Your task to perform on an android device: toggle priority inbox in the gmail app Image 0: 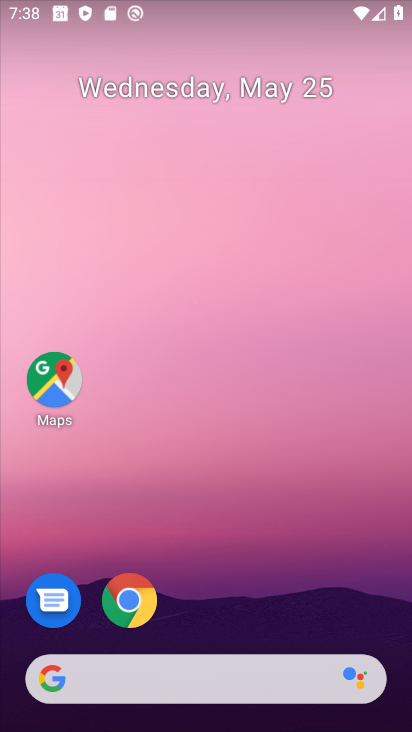
Step 0: drag from (226, 537) to (218, 44)
Your task to perform on an android device: toggle priority inbox in the gmail app Image 1: 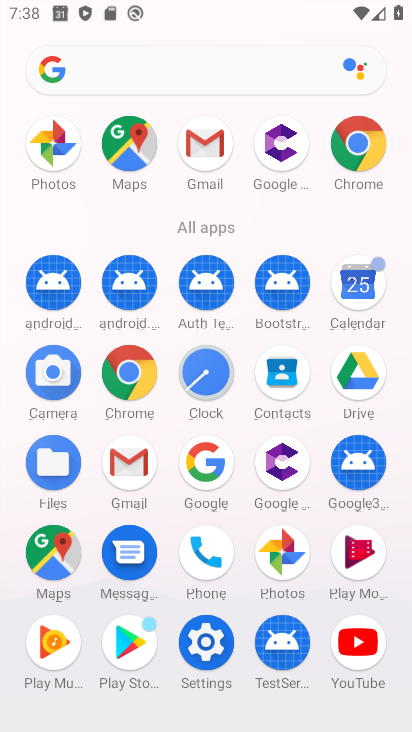
Step 1: click (201, 155)
Your task to perform on an android device: toggle priority inbox in the gmail app Image 2: 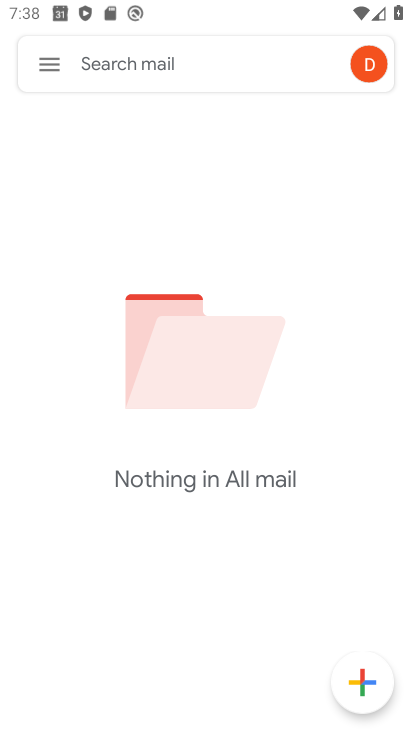
Step 2: click (58, 56)
Your task to perform on an android device: toggle priority inbox in the gmail app Image 3: 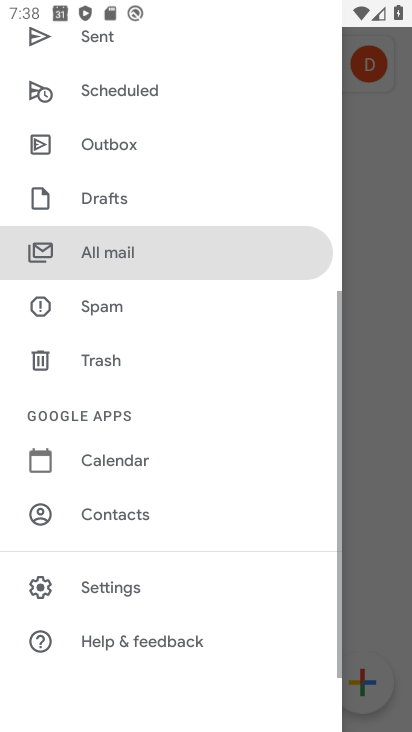
Step 3: drag from (209, 466) to (239, 157)
Your task to perform on an android device: toggle priority inbox in the gmail app Image 4: 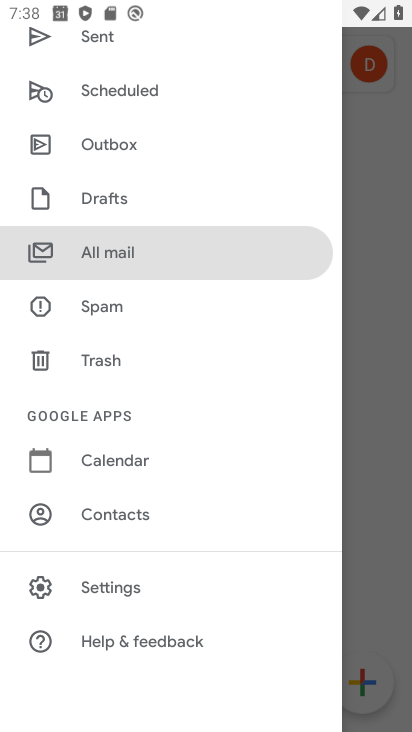
Step 4: click (106, 613)
Your task to perform on an android device: toggle priority inbox in the gmail app Image 5: 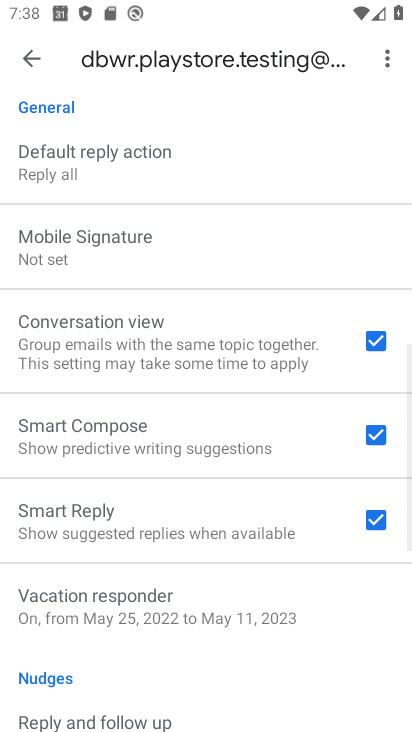
Step 5: drag from (111, 589) to (170, 167)
Your task to perform on an android device: toggle priority inbox in the gmail app Image 6: 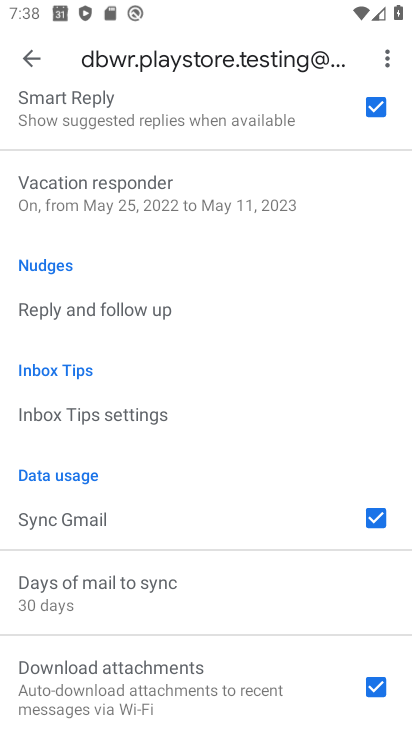
Step 6: drag from (201, 476) to (252, 109)
Your task to perform on an android device: toggle priority inbox in the gmail app Image 7: 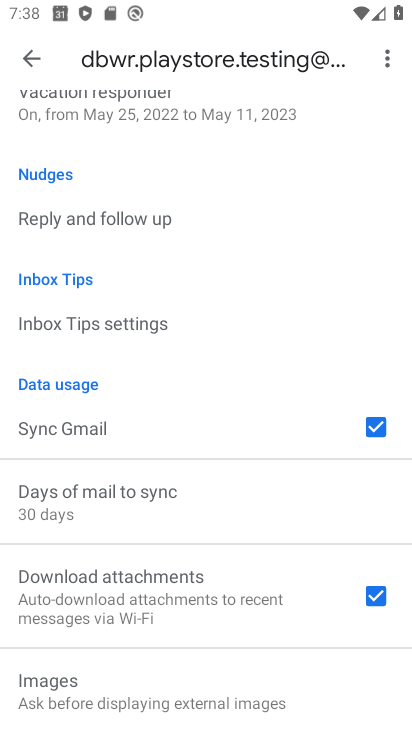
Step 7: drag from (166, 551) to (208, 143)
Your task to perform on an android device: toggle priority inbox in the gmail app Image 8: 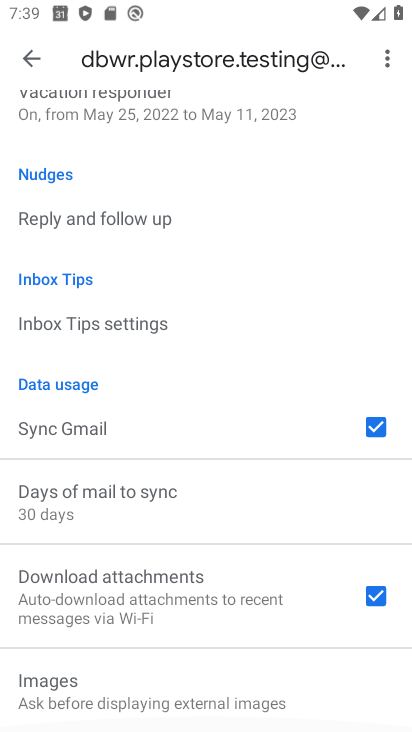
Step 8: drag from (179, 196) to (161, 582)
Your task to perform on an android device: toggle priority inbox in the gmail app Image 9: 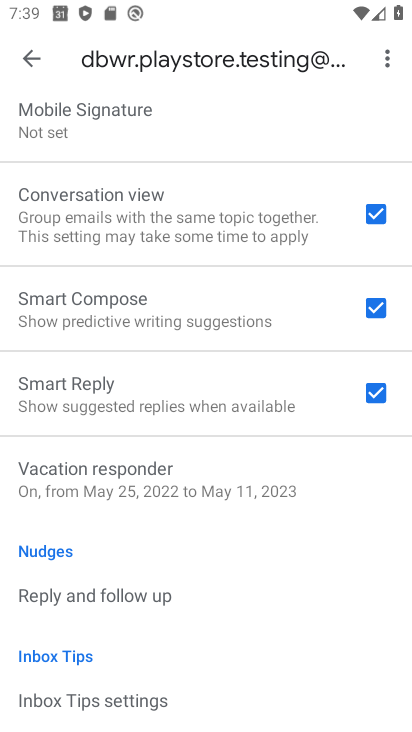
Step 9: drag from (206, 73) to (221, 718)
Your task to perform on an android device: toggle priority inbox in the gmail app Image 10: 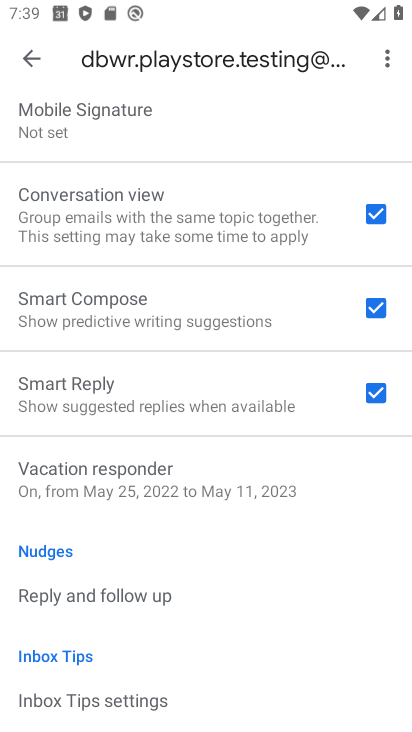
Step 10: drag from (200, 259) to (245, 697)
Your task to perform on an android device: toggle priority inbox in the gmail app Image 11: 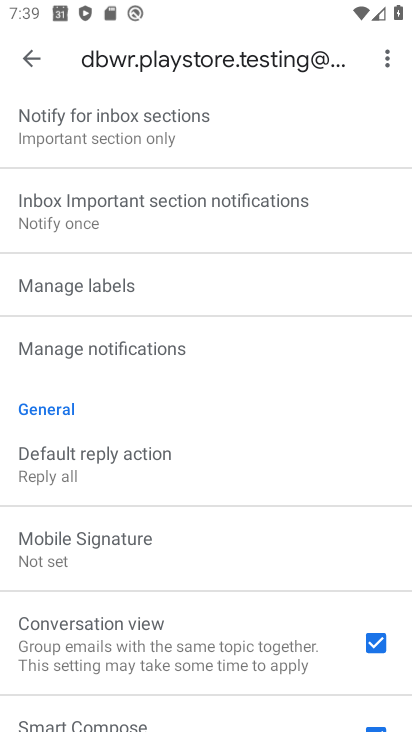
Step 11: drag from (174, 222) to (197, 663)
Your task to perform on an android device: toggle priority inbox in the gmail app Image 12: 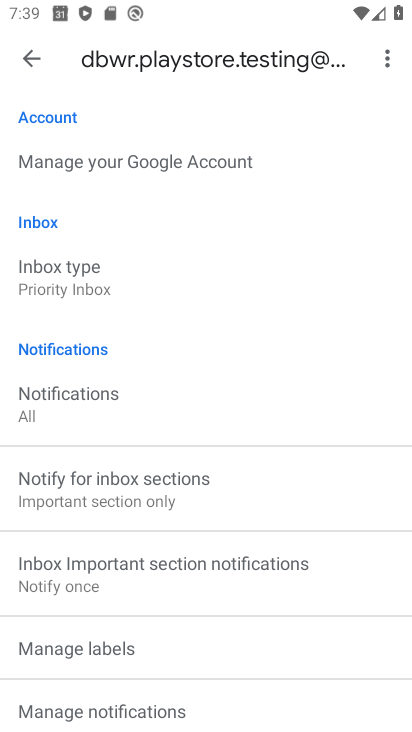
Step 12: click (92, 274)
Your task to perform on an android device: toggle priority inbox in the gmail app Image 13: 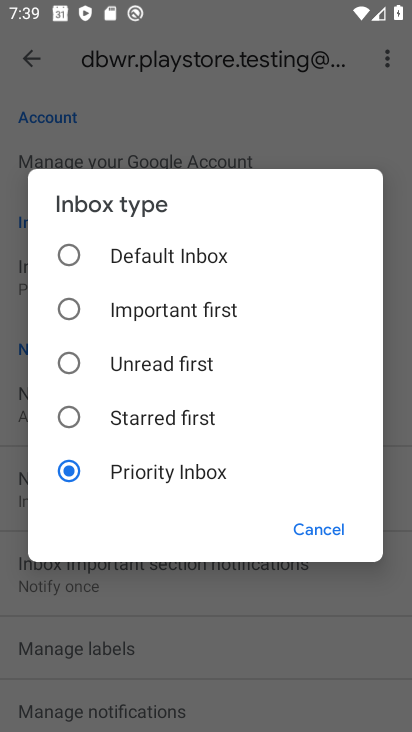
Step 13: click (148, 261)
Your task to perform on an android device: toggle priority inbox in the gmail app Image 14: 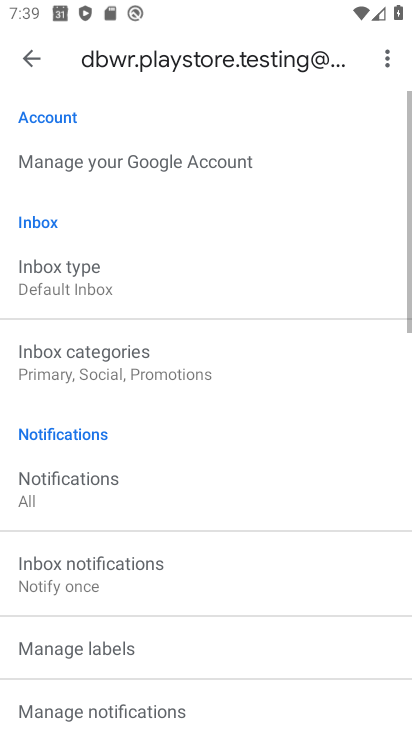
Step 14: task complete